Your task to perform on an android device: change the upload size in google photos Image 0: 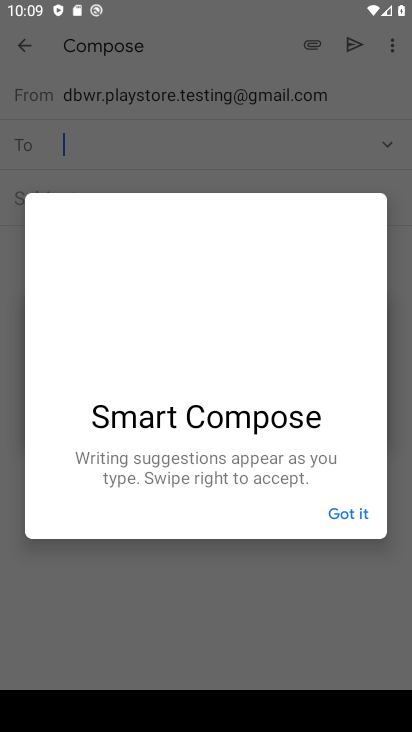
Step 0: press home button
Your task to perform on an android device: change the upload size in google photos Image 1: 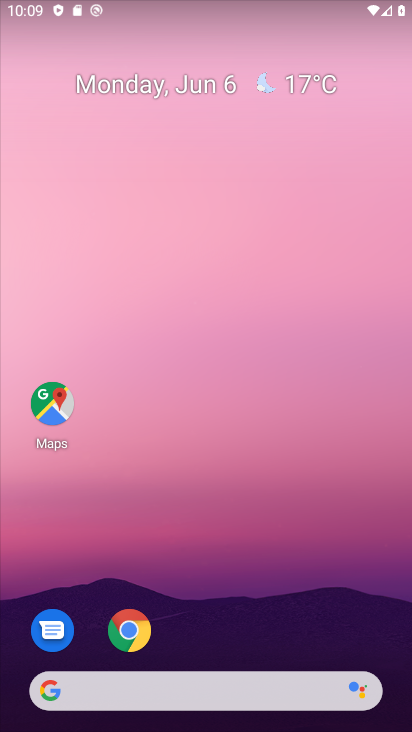
Step 1: drag from (387, 586) to (324, 104)
Your task to perform on an android device: change the upload size in google photos Image 2: 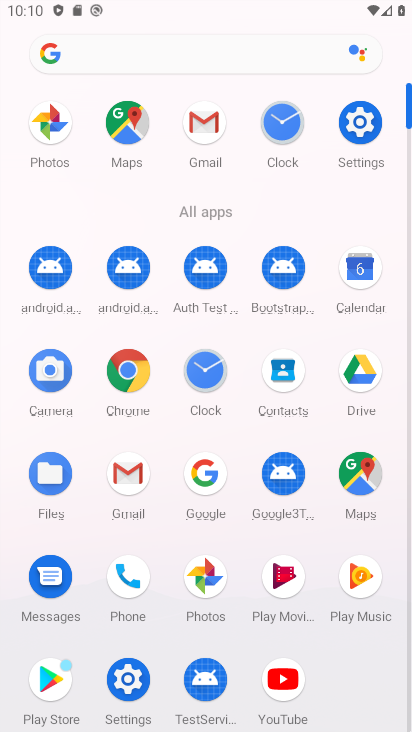
Step 2: click (197, 593)
Your task to perform on an android device: change the upload size in google photos Image 3: 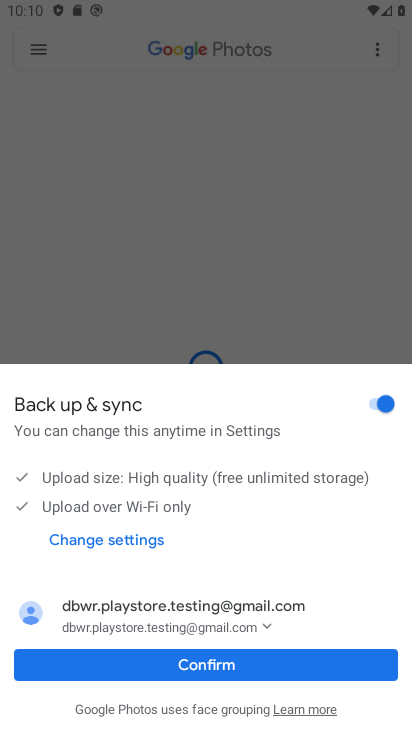
Step 3: click (266, 666)
Your task to perform on an android device: change the upload size in google photos Image 4: 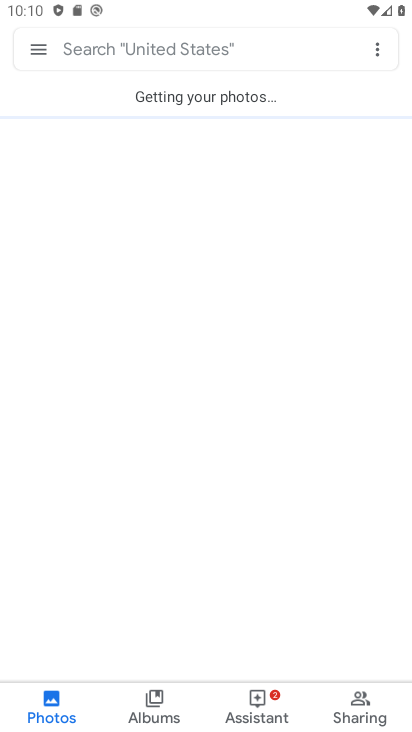
Step 4: click (29, 48)
Your task to perform on an android device: change the upload size in google photos Image 5: 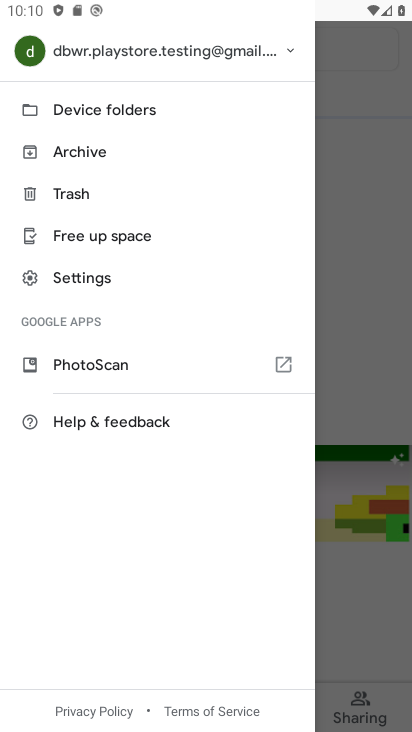
Step 5: click (106, 273)
Your task to perform on an android device: change the upload size in google photos Image 6: 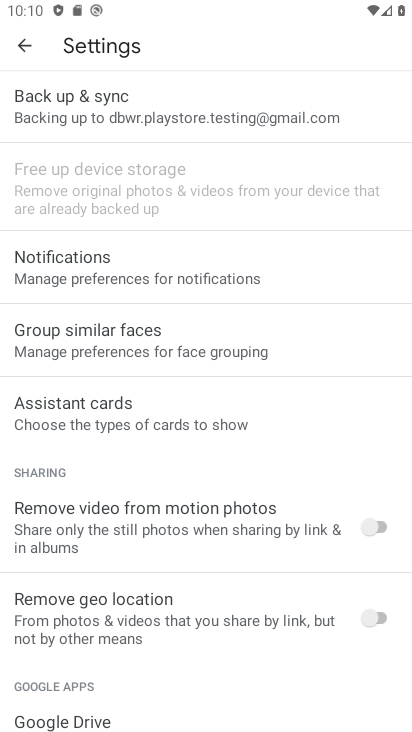
Step 6: click (158, 114)
Your task to perform on an android device: change the upload size in google photos Image 7: 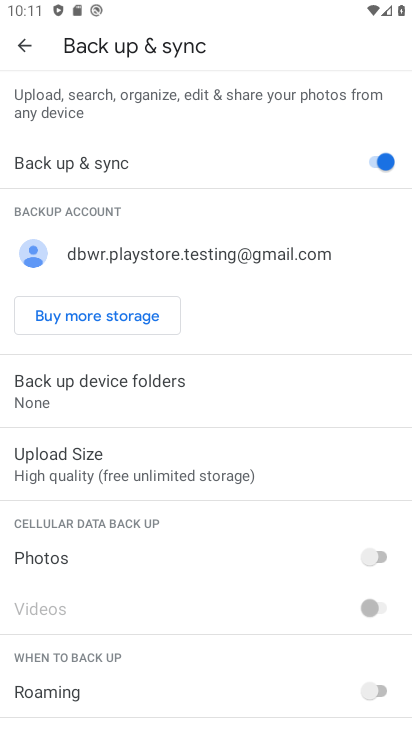
Step 7: click (107, 458)
Your task to perform on an android device: change the upload size in google photos Image 8: 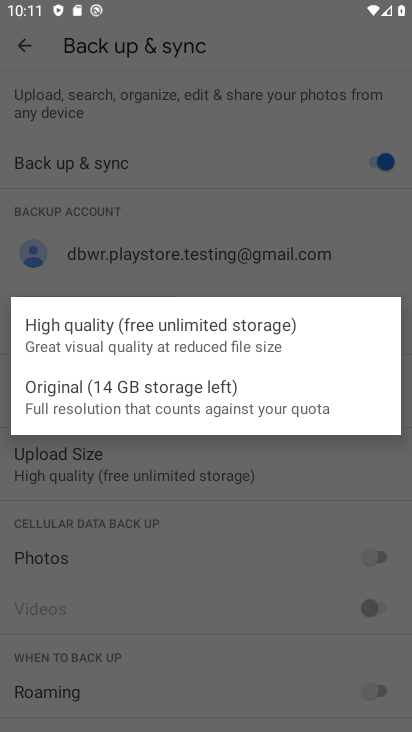
Step 8: click (188, 403)
Your task to perform on an android device: change the upload size in google photos Image 9: 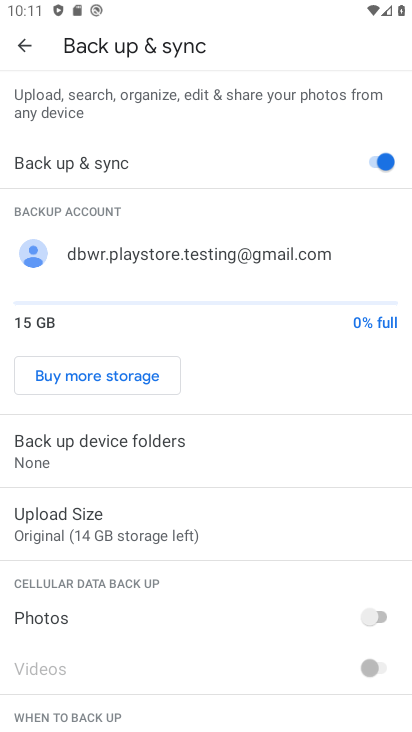
Step 9: task complete